Your task to perform on an android device: set default search engine in the chrome app Image 0: 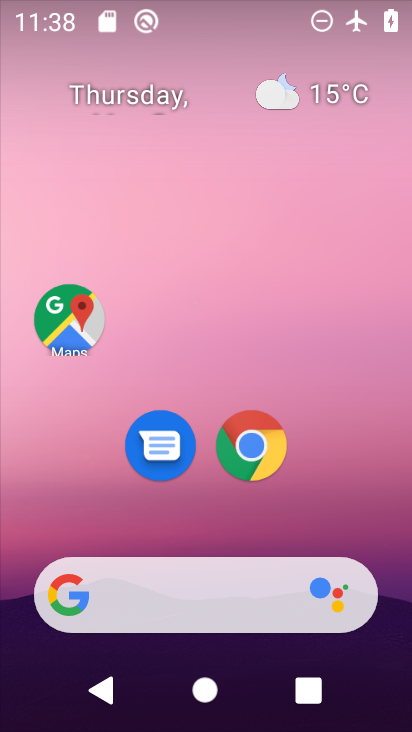
Step 0: click (256, 440)
Your task to perform on an android device: set default search engine in the chrome app Image 1: 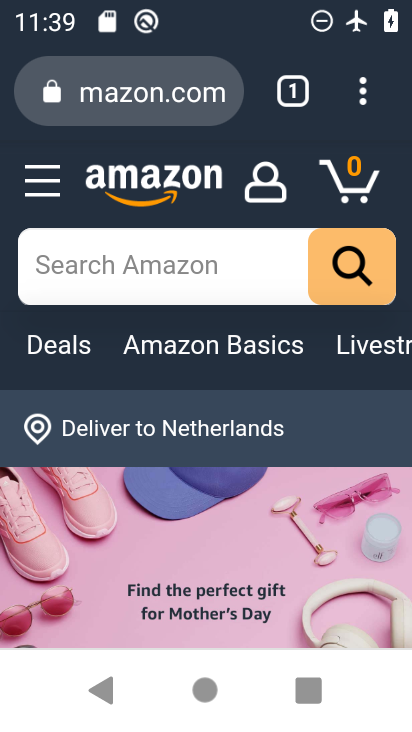
Step 1: click (362, 86)
Your task to perform on an android device: set default search engine in the chrome app Image 2: 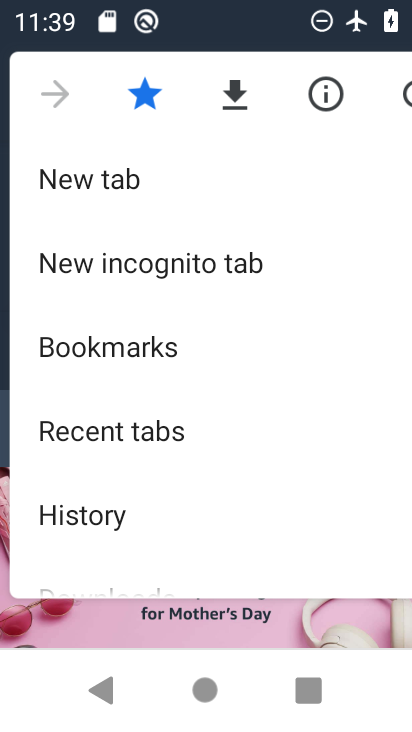
Step 2: drag from (182, 512) to (187, 142)
Your task to perform on an android device: set default search engine in the chrome app Image 3: 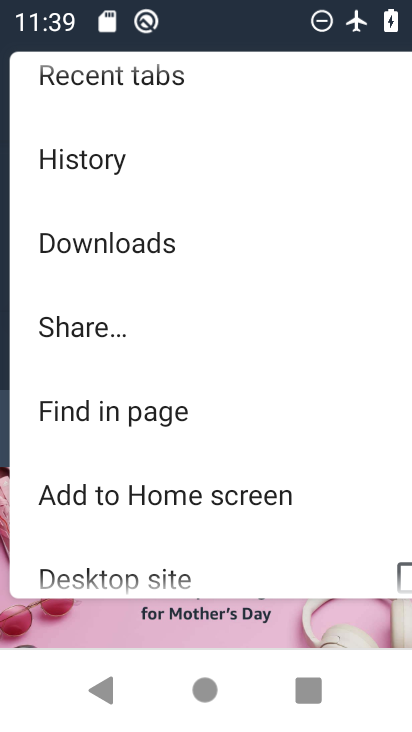
Step 3: drag from (154, 542) to (177, 120)
Your task to perform on an android device: set default search engine in the chrome app Image 4: 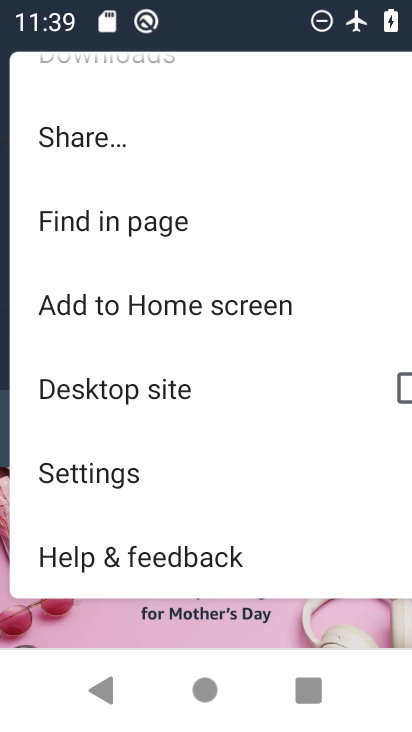
Step 4: click (117, 476)
Your task to perform on an android device: set default search engine in the chrome app Image 5: 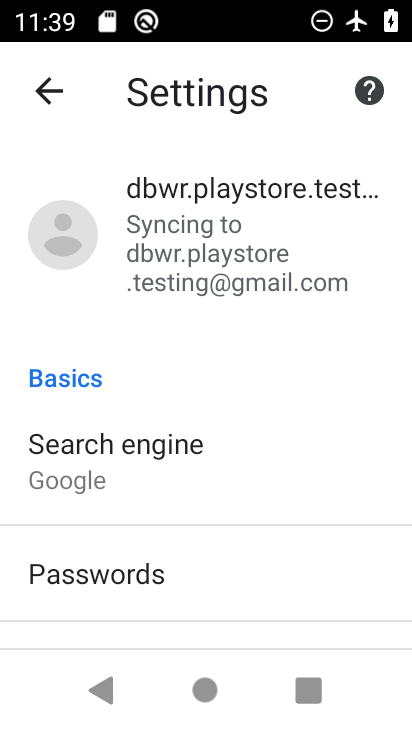
Step 5: click (101, 452)
Your task to perform on an android device: set default search engine in the chrome app Image 6: 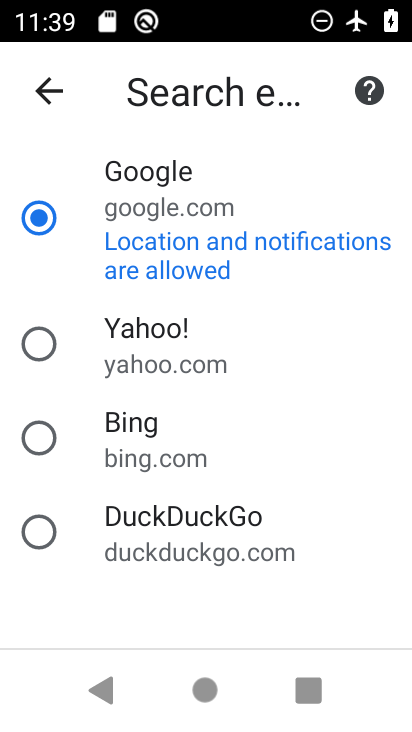
Step 6: click (141, 178)
Your task to perform on an android device: set default search engine in the chrome app Image 7: 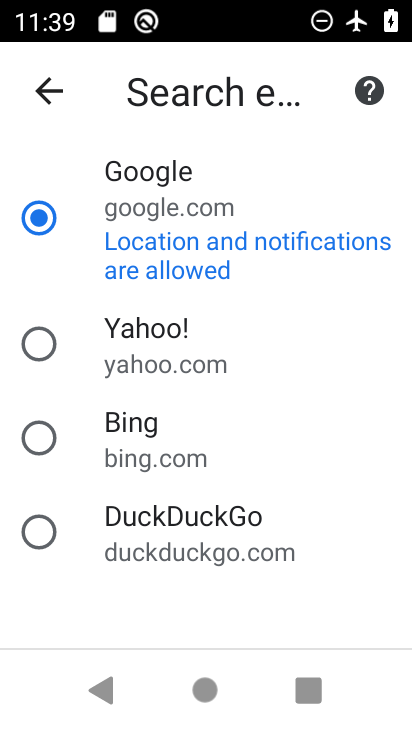
Step 7: task complete